Your task to perform on an android device: Show me the alarms in the clock app Image 0: 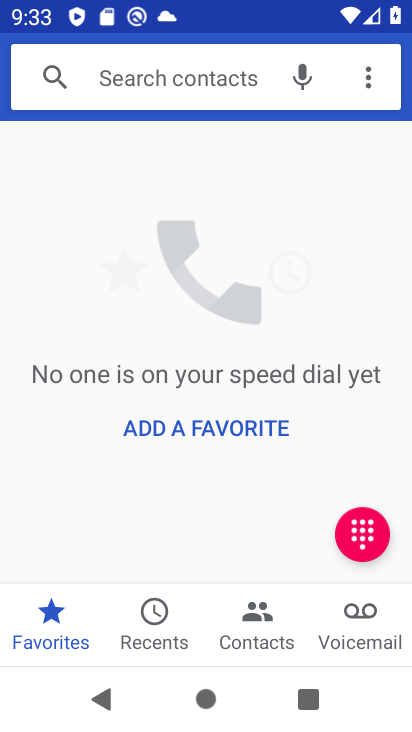
Step 0: press home button
Your task to perform on an android device: Show me the alarms in the clock app Image 1: 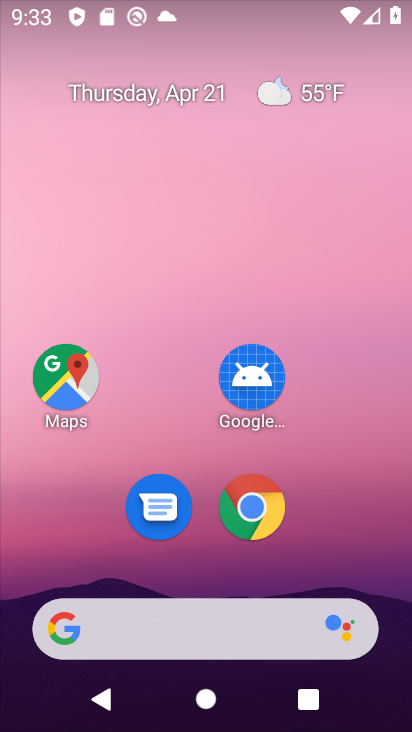
Step 1: drag from (317, 537) to (342, 187)
Your task to perform on an android device: Show me the alarms in the clock app Image 2: 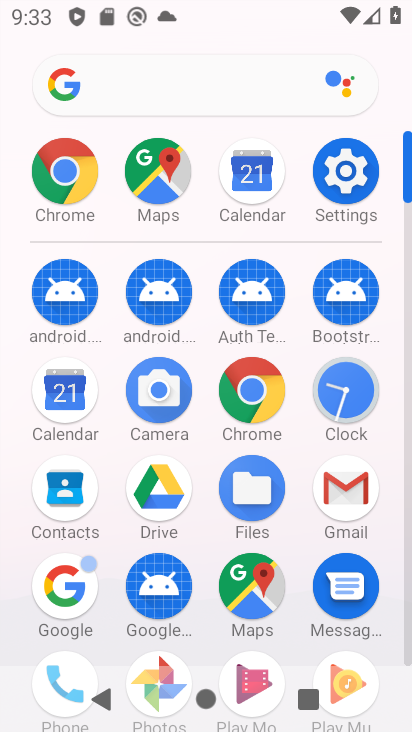
Step 2: click (336, 391)
Your task to perform on an android device: Show me the alarms in the clock app Image 3: 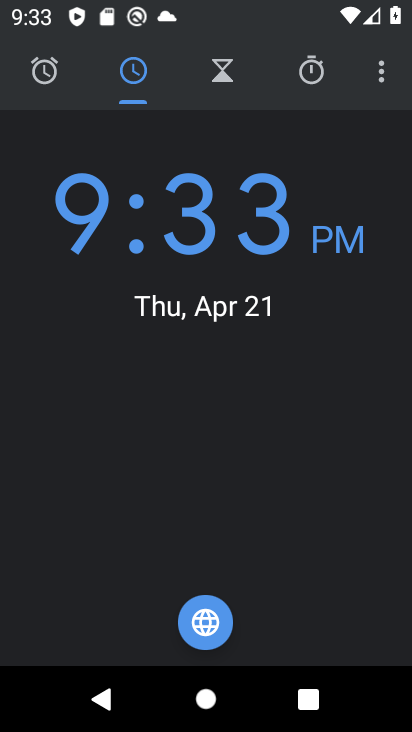
Step 3: click (50, 66)
Your task to perform on an android device: Show me the alarms in the clock app Image 4: 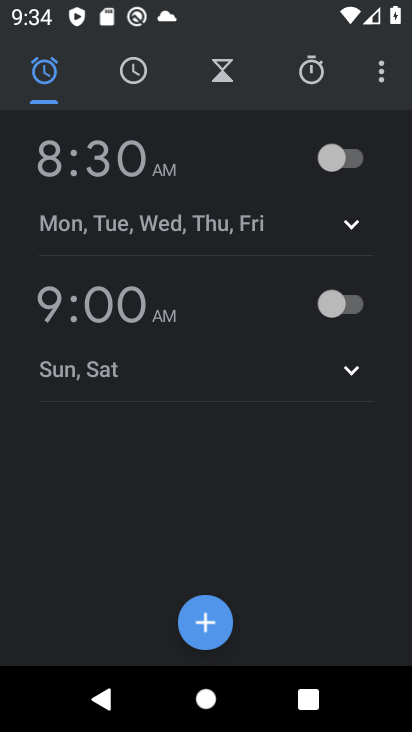
Step 4: task complete